Your task to perform on an android device: Go to Maps Image 0: 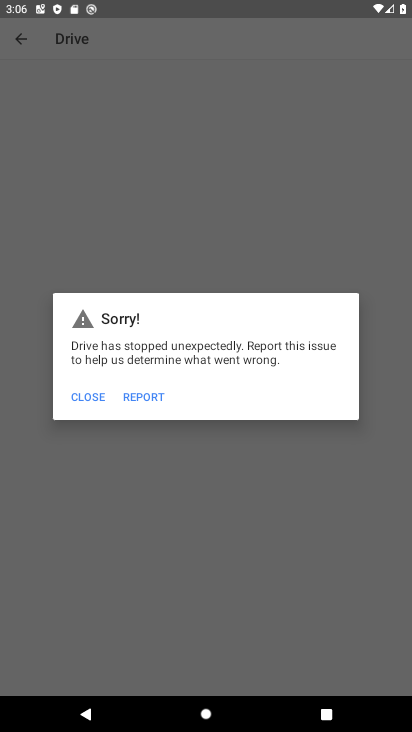
Step 0: drag from (222, 632) to (247, 47)
Your task to perform on an android device: Go to Maps Image 1: 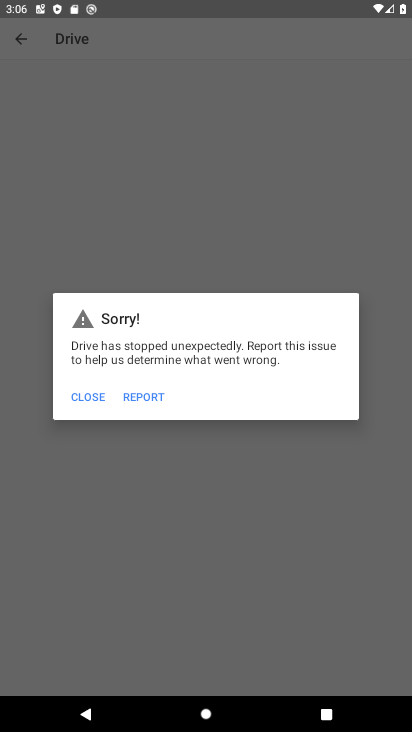
Step 1: press home button
Your task to perform on an android device: Go to Maps Image 2: 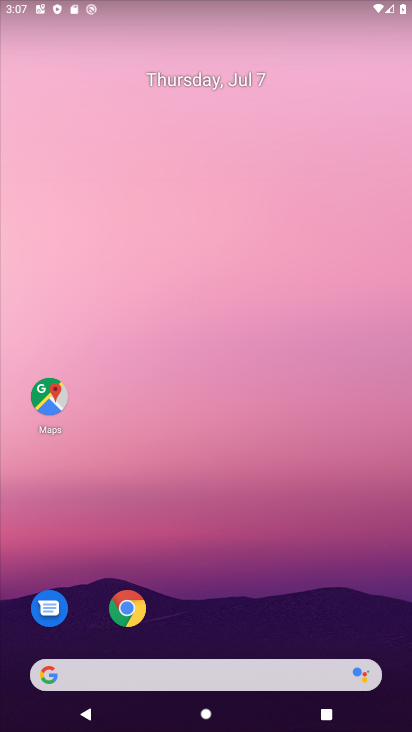
Step 2: click (46, 393)
Your task to perform on an android device: Go to Maps Image 3: 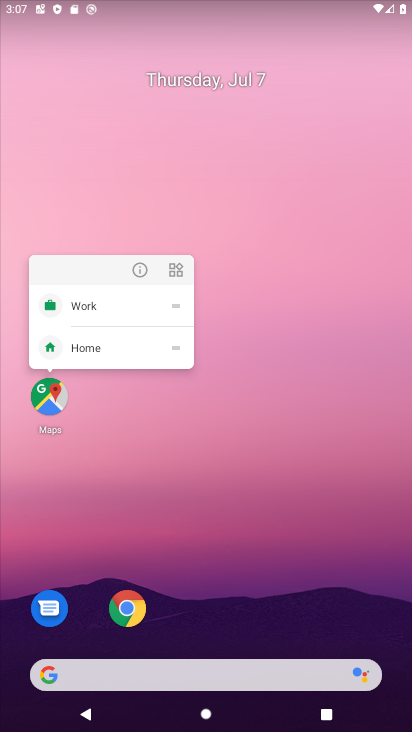
Step 3: click (53, 387)
Your task to perform on an android device: Go to Maps Image 4: 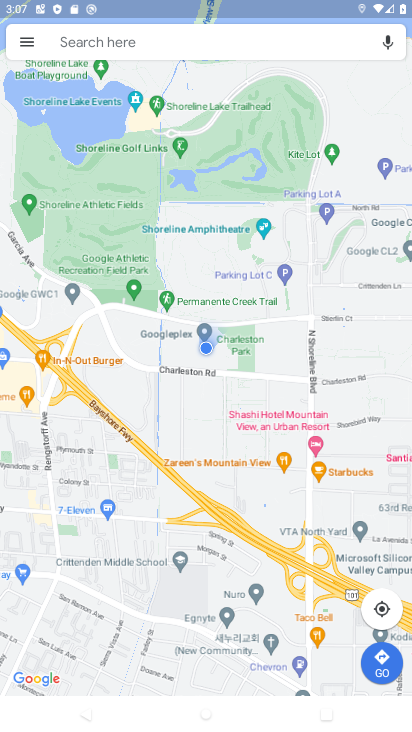
Step 4: click (18, 44)
Your task to perform on an android device: Go to Maps Image 5: 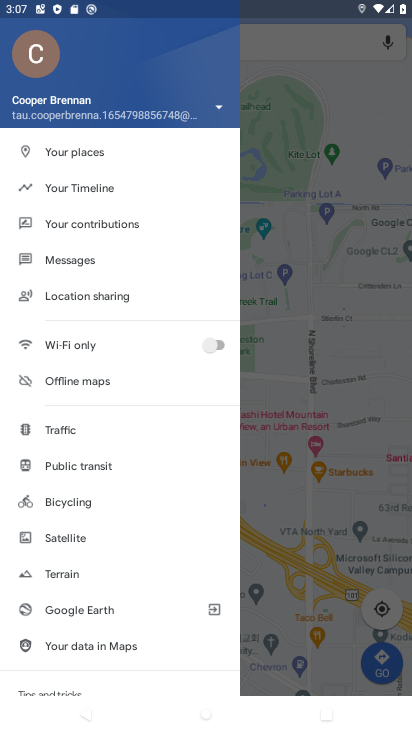
Step 5: task complete